Your task to perform on an android device: What's the weather going to be tomorrow? Image 0: 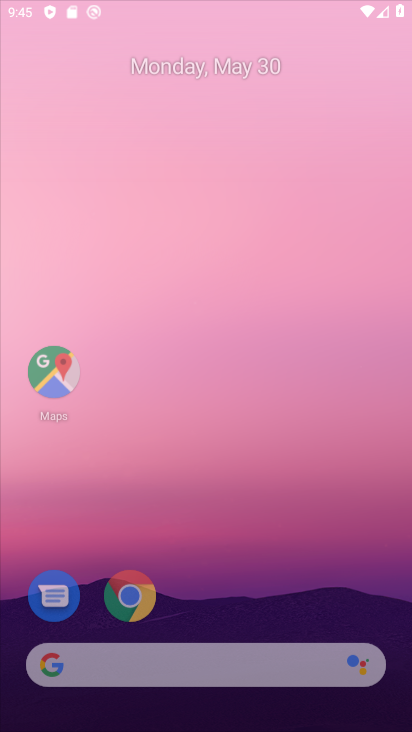
Step 0: click (176, 37)
Your task to perform on an android device: What's the weather going to be tomorrow? Image 1: 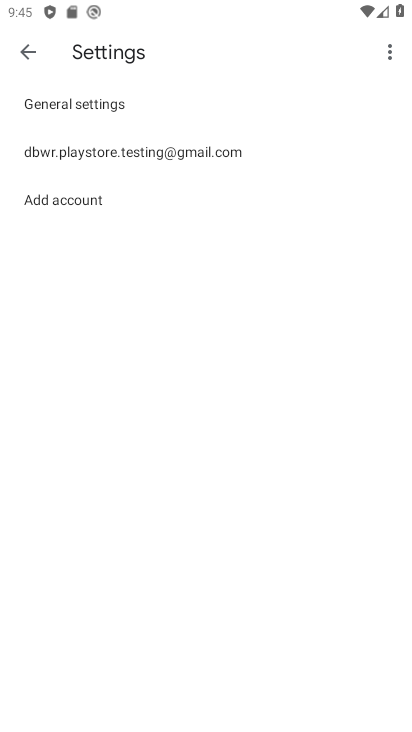
Step 1: press home button
Your task to perform on an android device: What's the weather going to be tomorrow? Image 2: 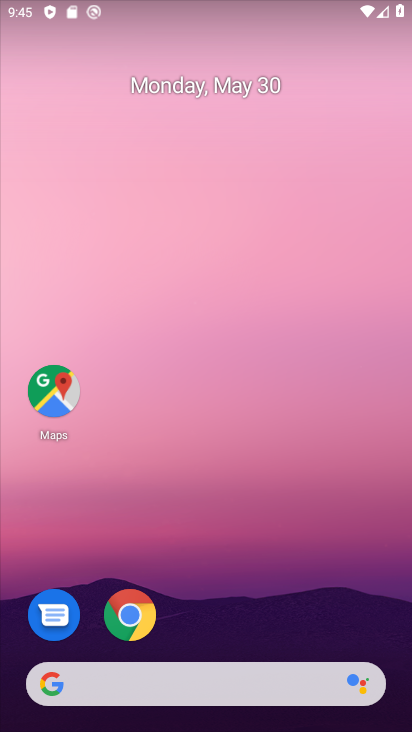
Step 2: drag from (213, 723) to (222, 40)
Your task to perform on an android device: What's the weather going to be tomorrow? Image 3: 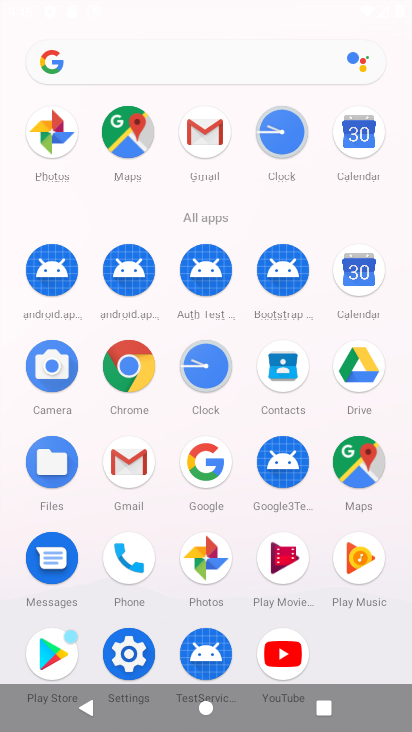
Step 3: click (203, 465)
Your task to perform on an android device: What's the weather going to be tomorrow? Image 4: 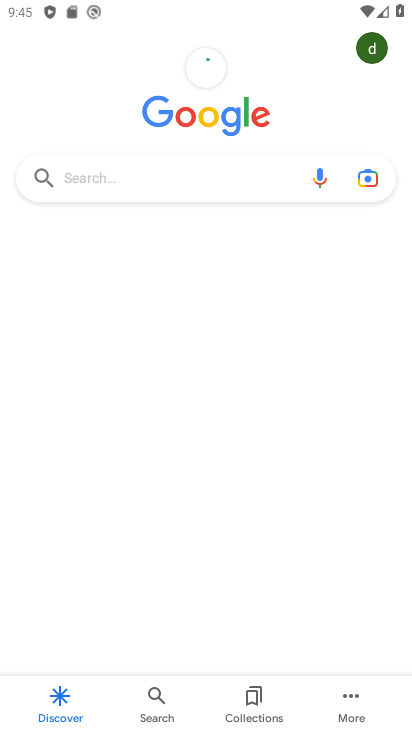
Step 4: click (174, 174)
Your task to perform on an android device: What's the weather going to be tomorrow? Image 5: 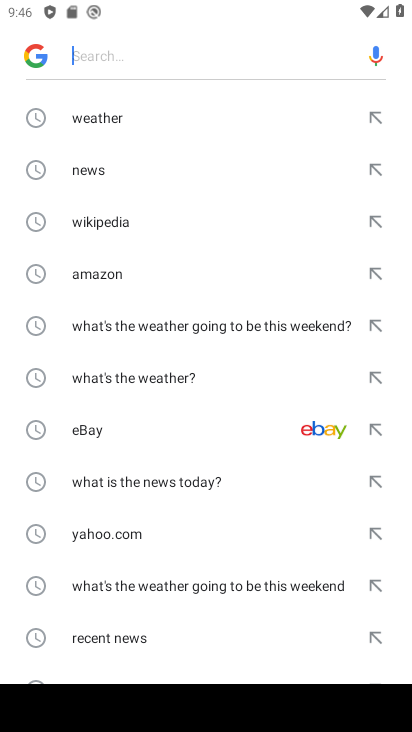
Step 5: click (93, 118)
Your task to perform on an android device: What's the weather going to be tomorrow? Image 6: 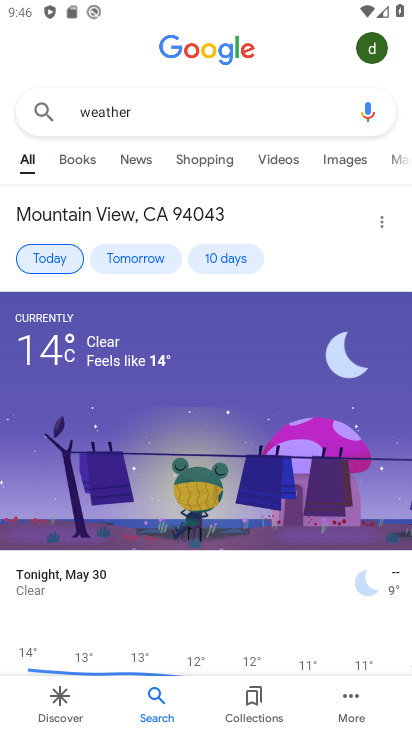
Step 6: click (145, 258)
Your task to perform on an android device: What's the weather going to be tomorrow? Image 7: 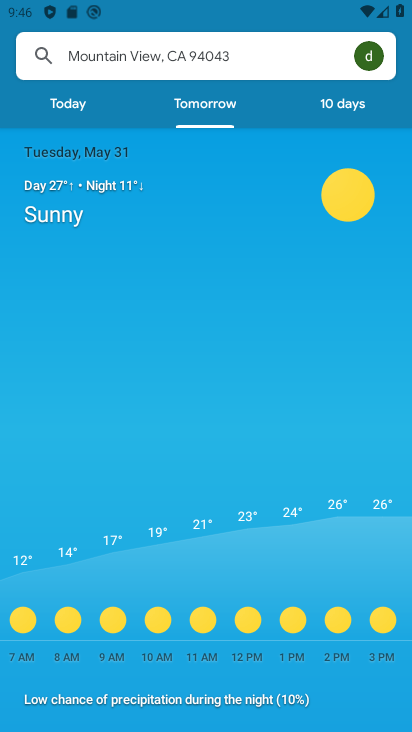
Step 7: task complete